Your task to perform on an android device: add a label to a message in the gmail app Image 0: 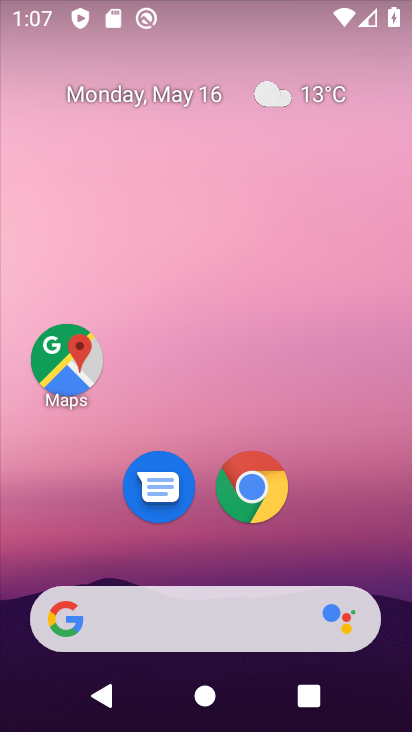
Step 0: drag from (217, 534) to (288, 306)
Your task to perform on an android device: add a label to a message in the gmail app Image 1: 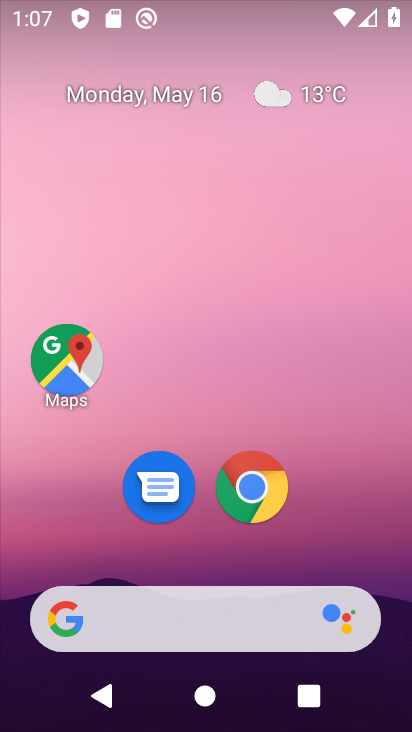
Step 1: click (182, 342)
Your task to perform on an android device: add a label to a message in the gmail app Image 2: 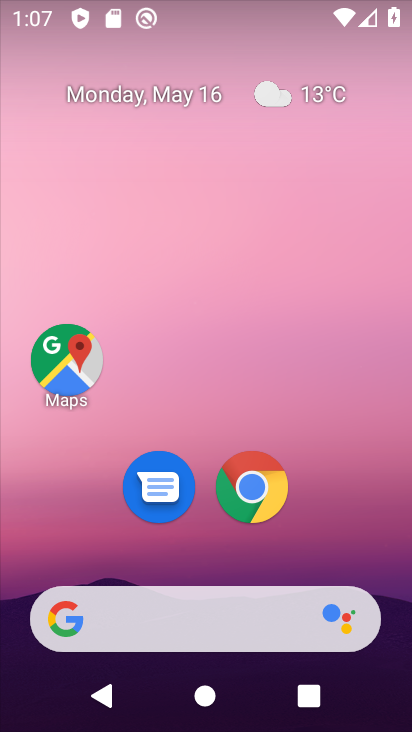
Step 2: drag from (210, 565) to (263, 326)
Your task to perform on an android device: add a label to a message in the gmail app Image 3: 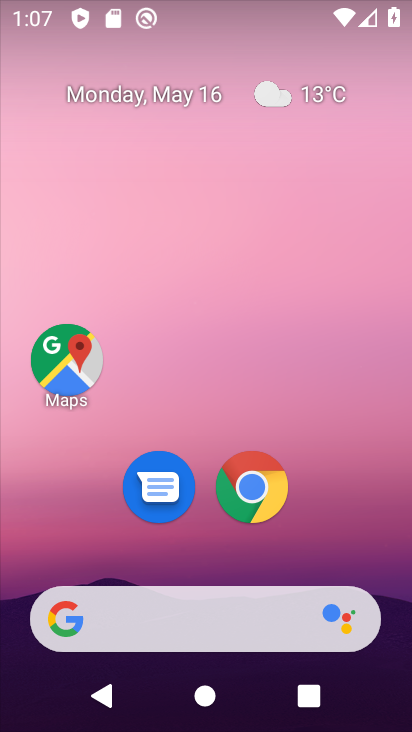
Step 3: drag from (194, 543) to (387, 536)
Your task to perform on an android device: add a label to a message in the gmail app Image 4: 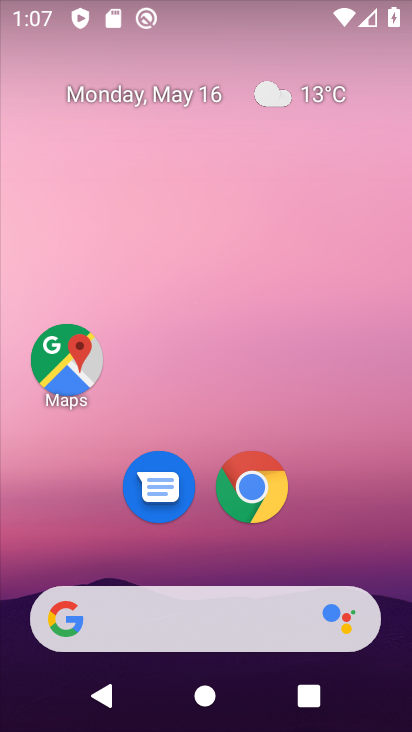
Step 4: click (329, 637)
Your task to perform on an android device: add a label to a message in the gmail app Image 5: 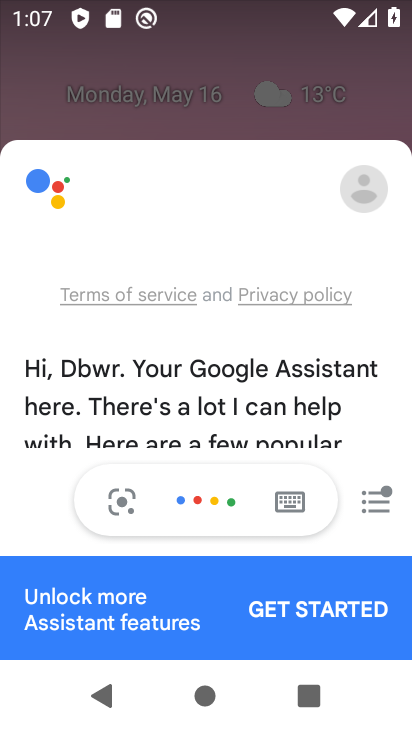
Step 5: press home button
Your task to perform on an android device: add a label to a message in the gmail app Image 6: 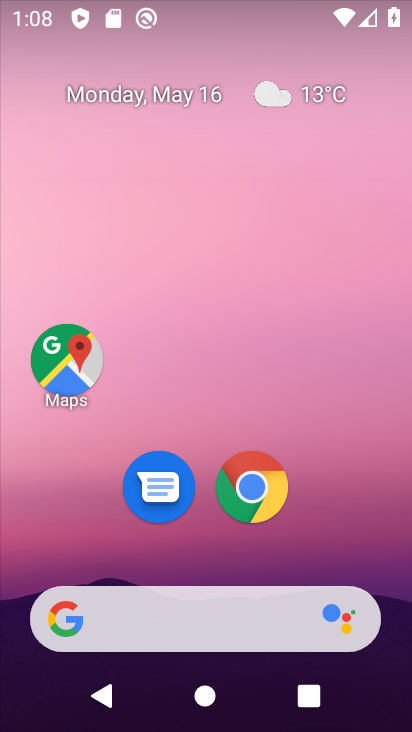
Step 6: drag from (191, 267) to (166, 38)
Your task to perform on an android device: add a label to a message in the gmail app Image 7: 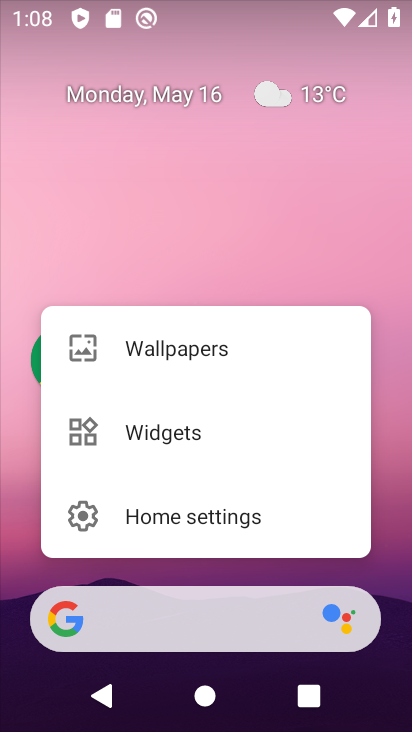
Step 7: click (196, 572)
Your task to perform on an android device: add a label to a message in the gmail app Image 8: 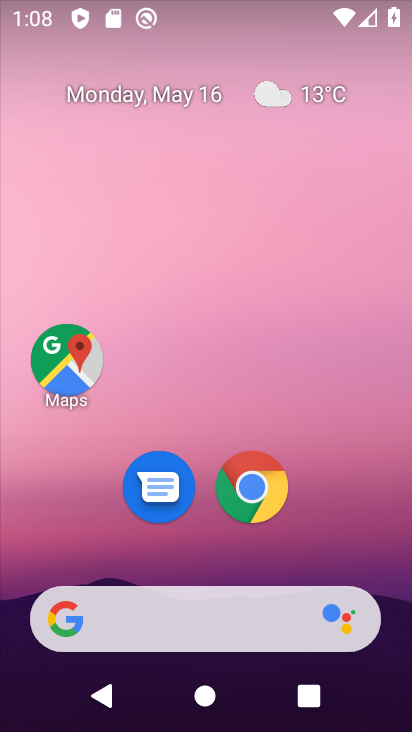
Step 8: drag from (212, 346) to (212, 54)
Your task to perform on an android device: add a label to a message in the gmail app Image 9: 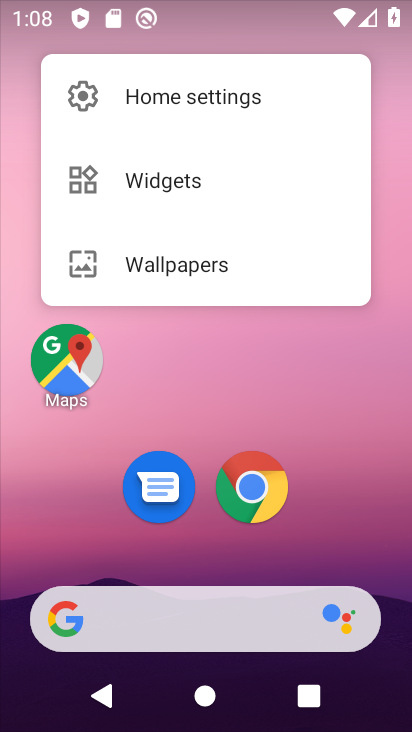
Step 9: drag from (227, 565) to (232, 250)
Your task to perform on an android device: add a label to a message in the gmail app Image 10: 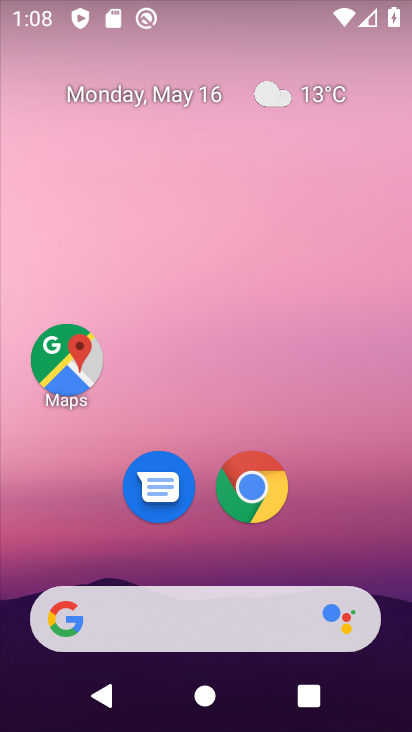
Step 10: drag from (221, 559) to (205, 48)
Your task to perform on an android device: add a label to a message in the gmail app Image 11: 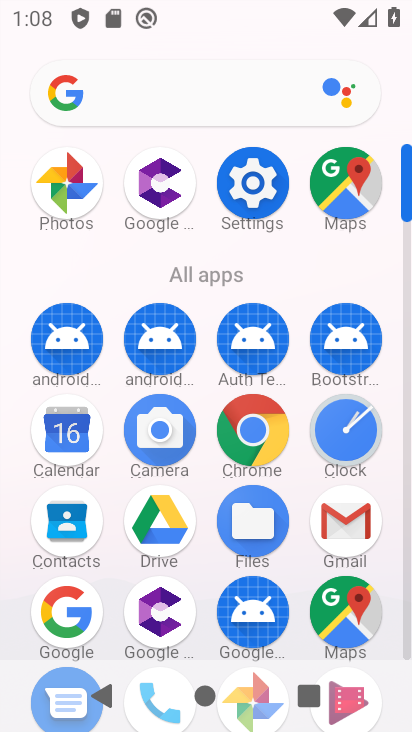
Step 11: click (346, 513)
Your task to perform on an android device: add a label to a message in the gmail app Image 12: 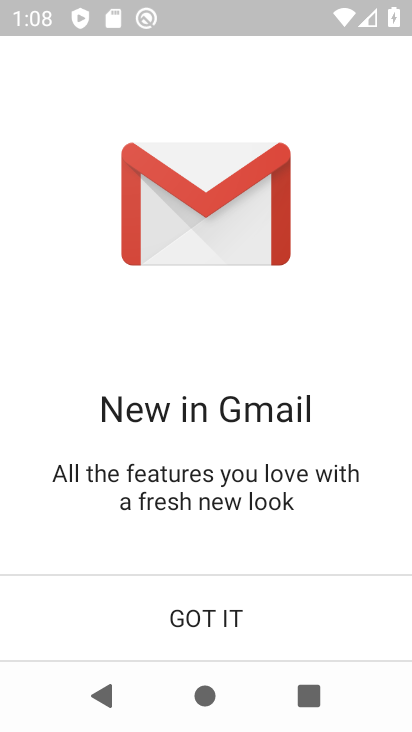
Step 12: click (214, 600)
Your task to perform on an android device: add a label to a message in the gmail app Image 13: 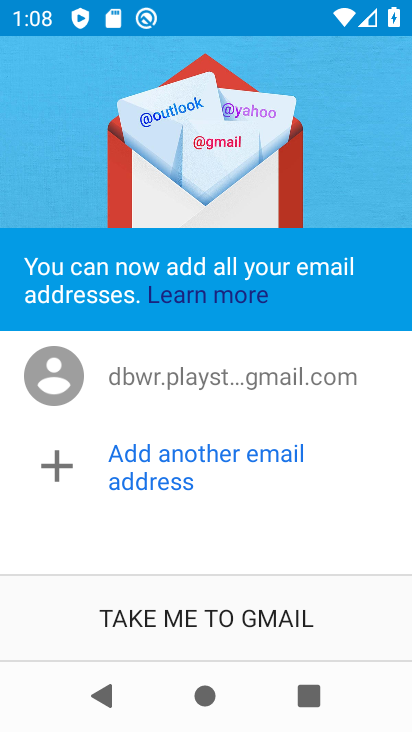
Step 13: click (214, 600)
Your task to perform on an android device: add a label to a message in the gmail app Image 14: 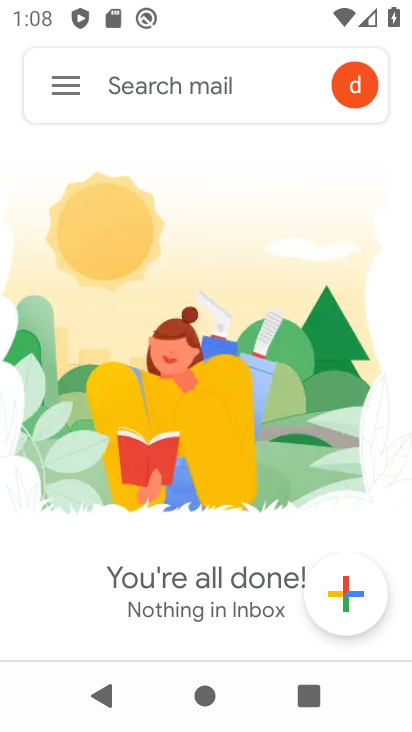
Step 14: click (42, 77)
Your task to perform on an android device: add a label to a message in the gmail app Image 15: 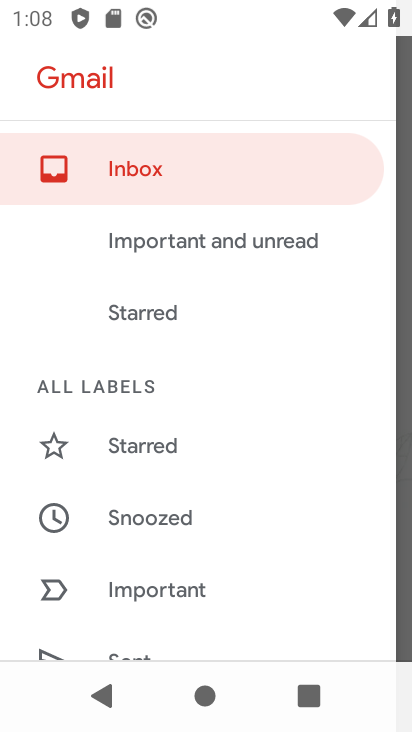
Step 15: drag from (185, 618) to (276, 16)
Your task to perform on an android device: add a label to a message in the gmail app Image 16: 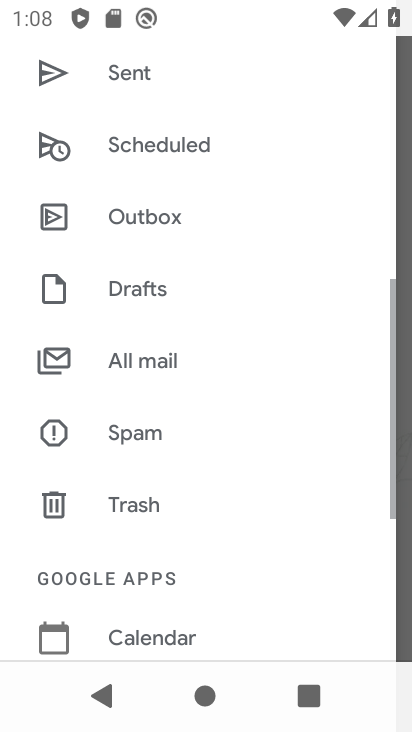
Step 16: drag from (262, 563) to (311, 134)
Your task to perform on an android device: add a label to a message in the gmail app Image 17: 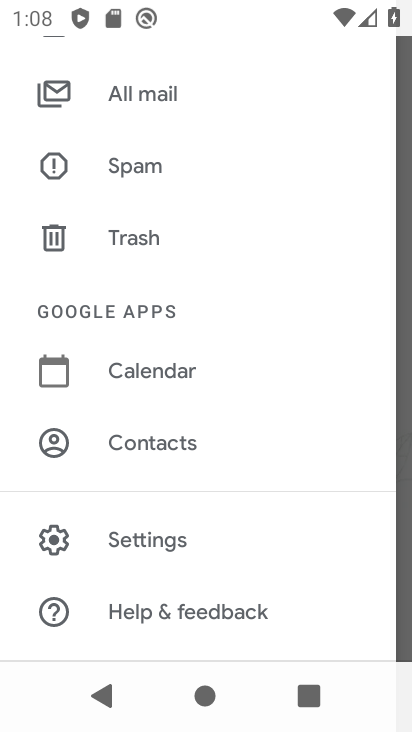
Step 17: click (202, 560)
Your task to perform on an android device: add a label to a message in the gmail app Image 18: 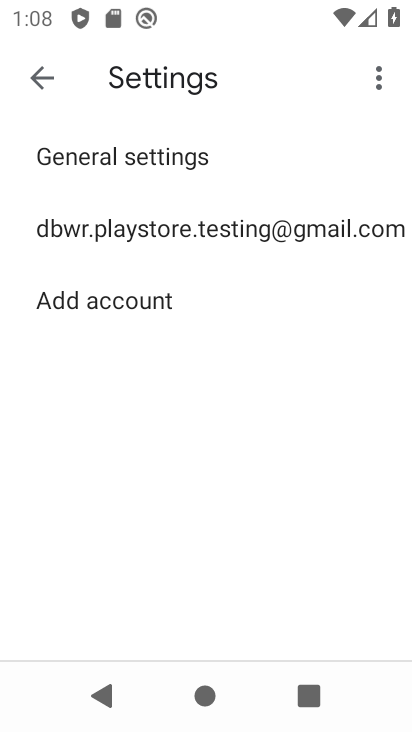
Step 18: click (227, 210)
Your task to perform on an android device: add a label to a message in the gmail app Image 19: 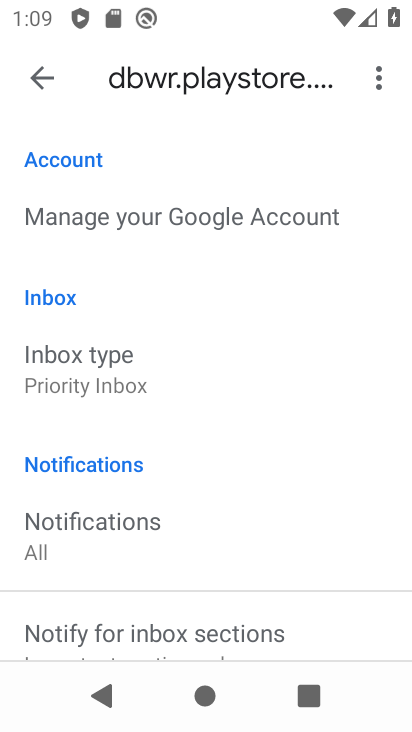
Step 19: task complete